Your task to perform on an android device: create a new album in the google photos Image 0: 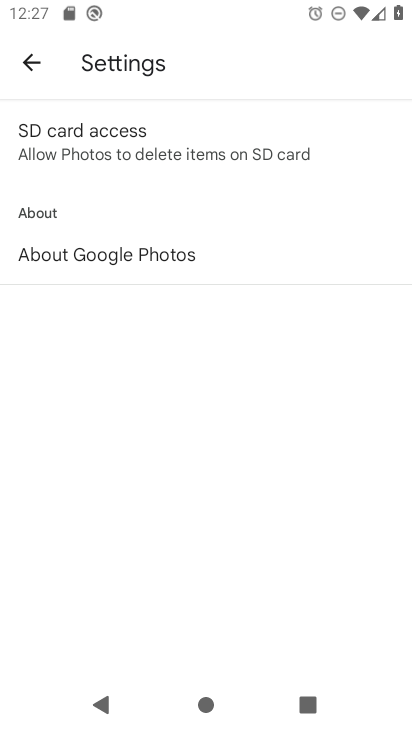
Step 0: press home button
Your task to perform on an android device: create a new album in the google photos Image 1: 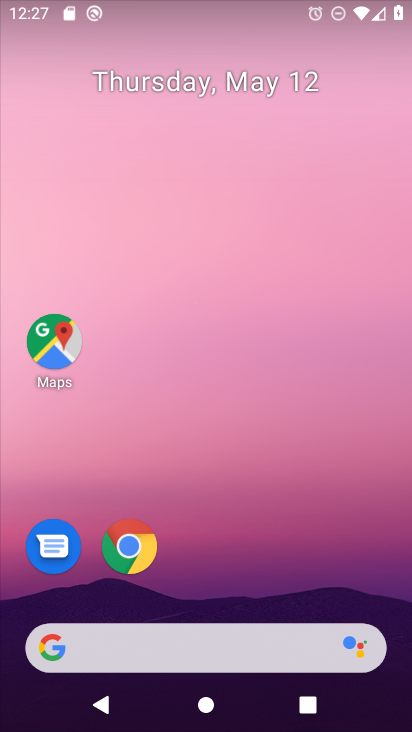
Step 1: drag from (393, 627) to (295, 40)
Your task to perform on an android device: create a new album in the google photos Image 2: 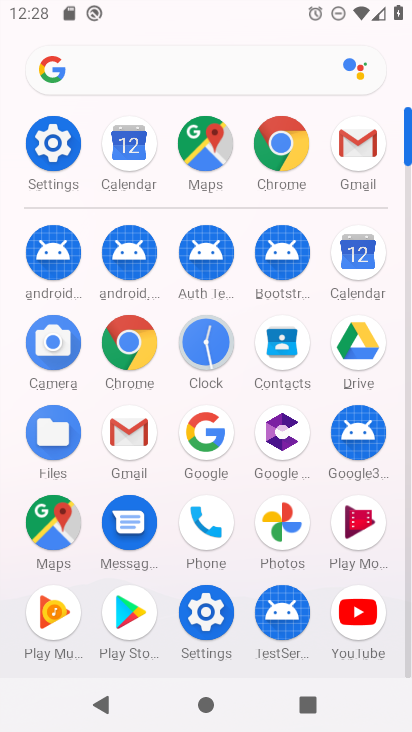
Step 2: click (267, 530)
Your task to perform on an android device: create a new album in the google photos Image 3: 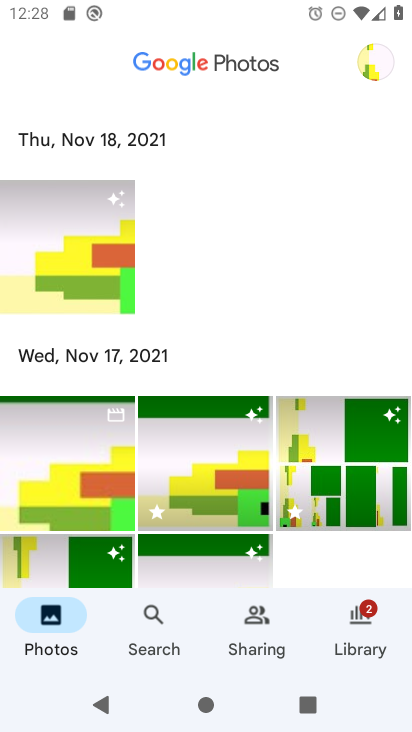
Step 3: click (68, 250)
Your task to perform on an android device: create a new album in the google photos Image 4: 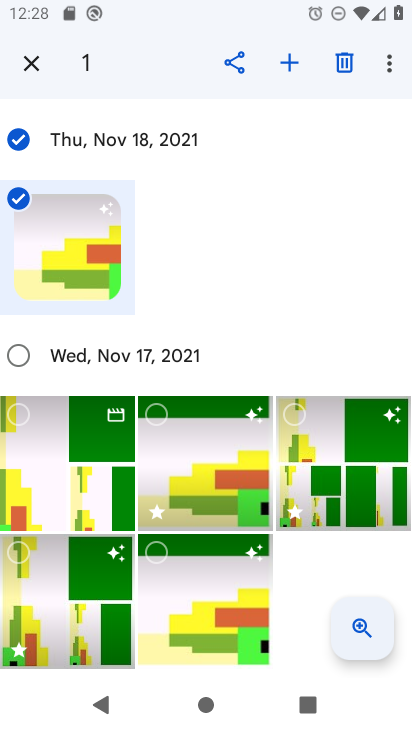
Step 4: click (284, 73)
Your task to perform on an android device: create a new album in the google photos Image 5: 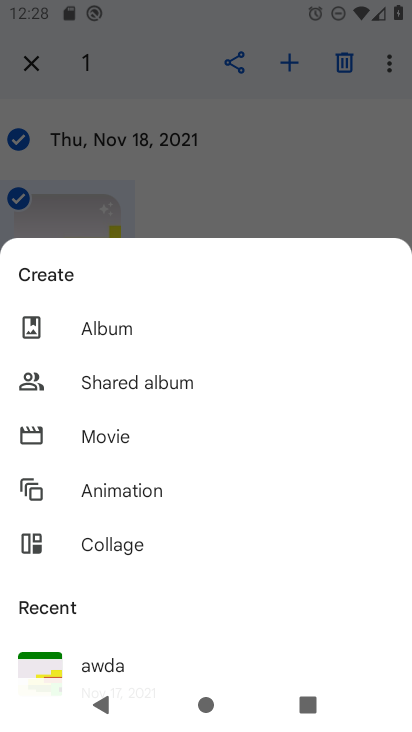
Step 5: click (141, 326)
Your task to perform on an android device: create a new album in the google photos Image 6: 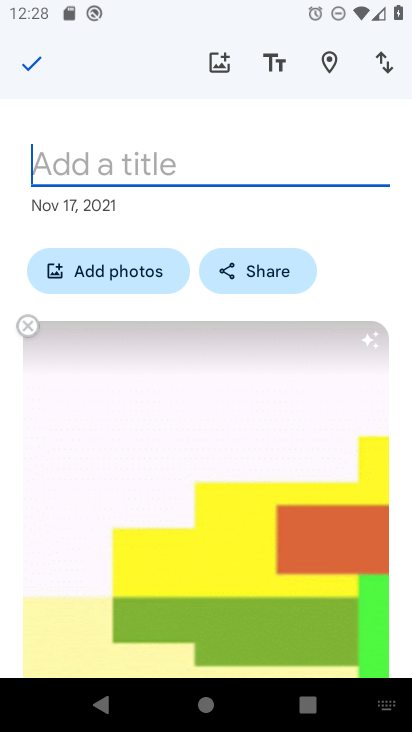
Step 6: type "VB"
Your task to perform on an android device: create a new album in the google photos Image 7: 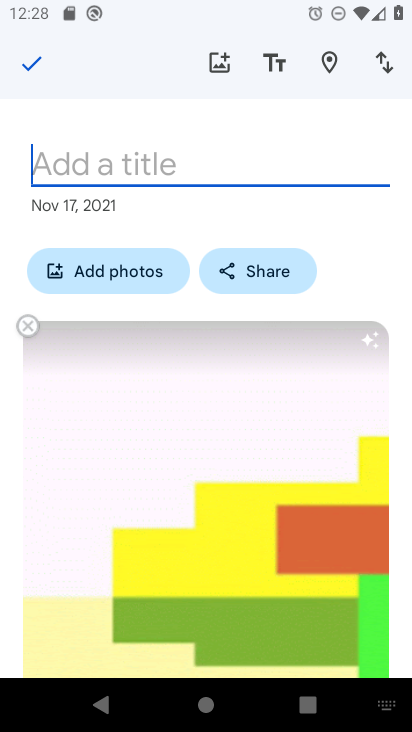
Step 7: click (31, 61)
Your task to perform on an android device: create a new album in the google photos Image 8: 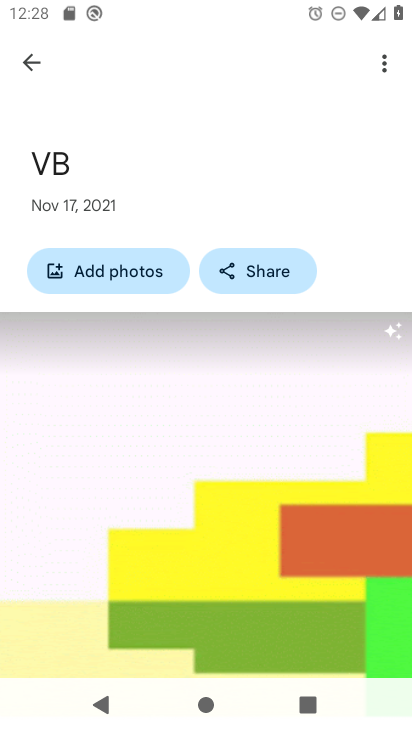
Step 8: task complete